Your task to perform on an android device: Go to Wikipedia Image 0: 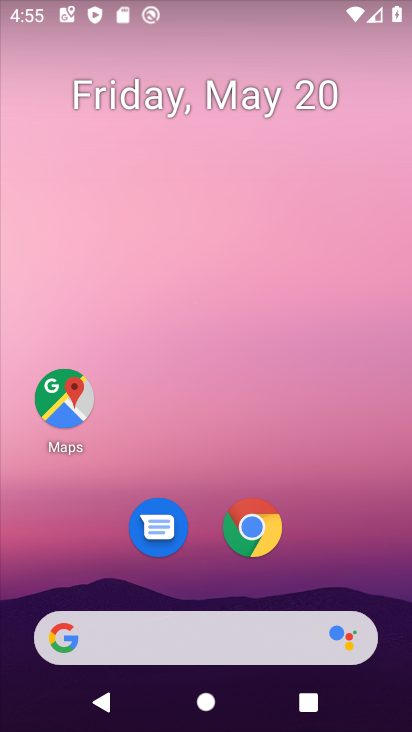
Step 0: click (253, 531)
Your task to perform on an android device: Go to Wikipedia Image 1: 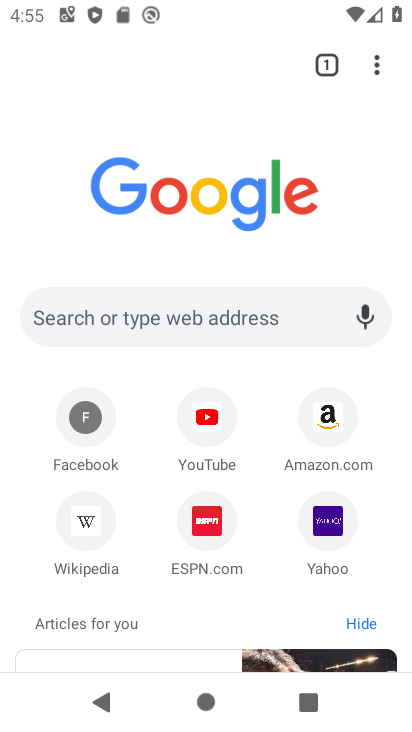
Step 1: click (92, 539)
Your task to perform on an android device: Go to Wikipedia Image 2: 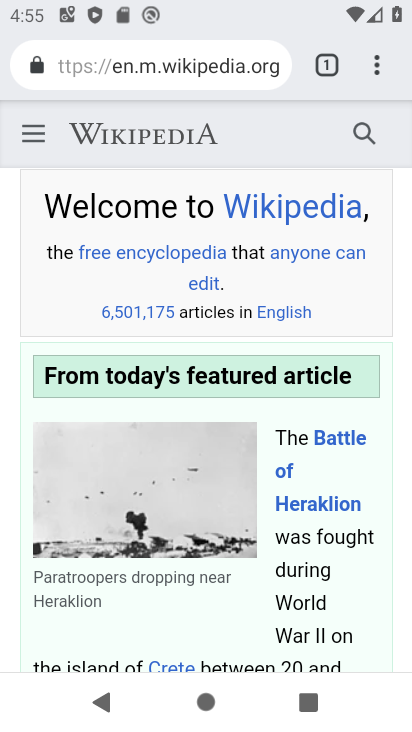
Step 2: task complete